Your task to perform on an android device: Show me the alarms in the clock app Image 0: 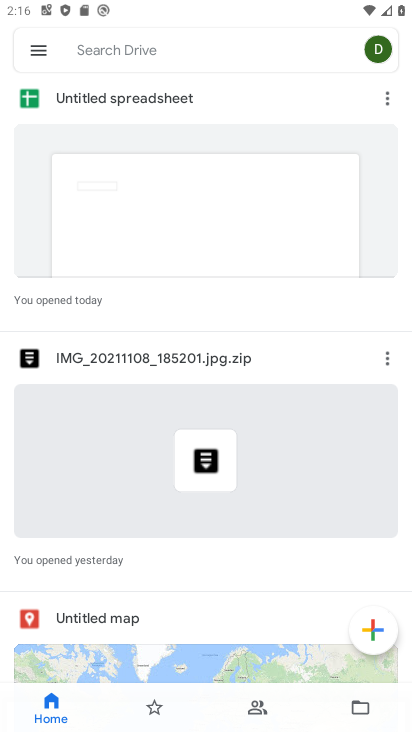
Step 0: press back button
Your task to perform on an android device: Show me the alarms in the clock app Image 1: 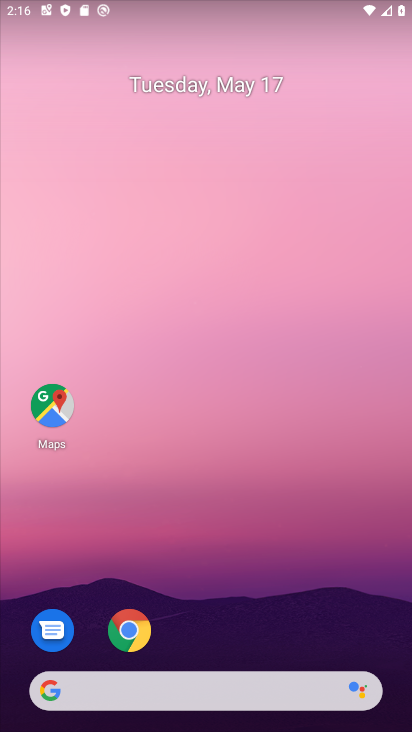
Step 1: drag from (237, 608) to (152, 74)
Your task to perform on an android device: Show me the alarms in the clock app Image 2: 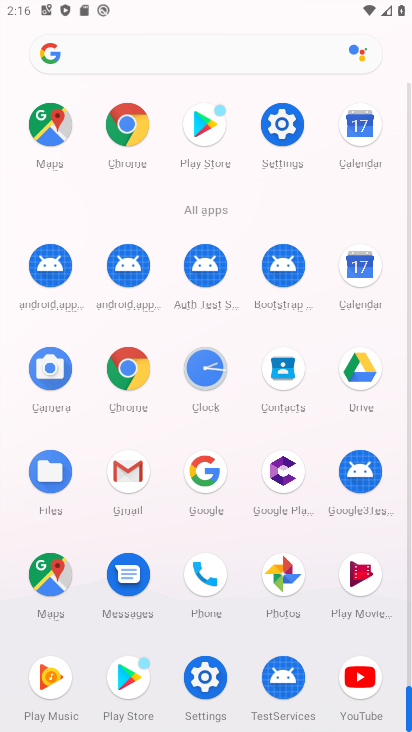
Step 2: click (213, 364)
Your task to perform on an android device: Show me the alarms in the clock app Image 3: 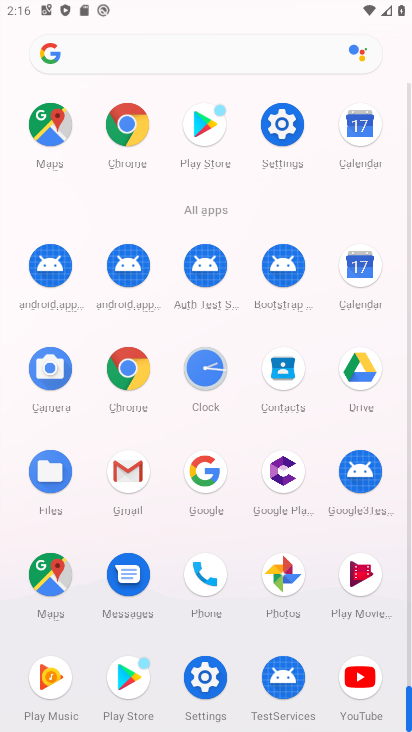
Step 3: click (213, 364)
Your task to perform on an android device: Show me the alarms in the clock app Image 4: 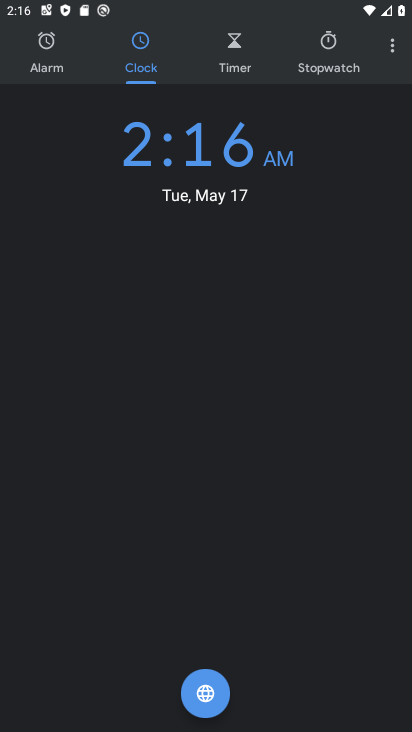
Step 4: click (39, 61)
Your task to perform on an android device: Show me the alarms in the clock app Image 5: 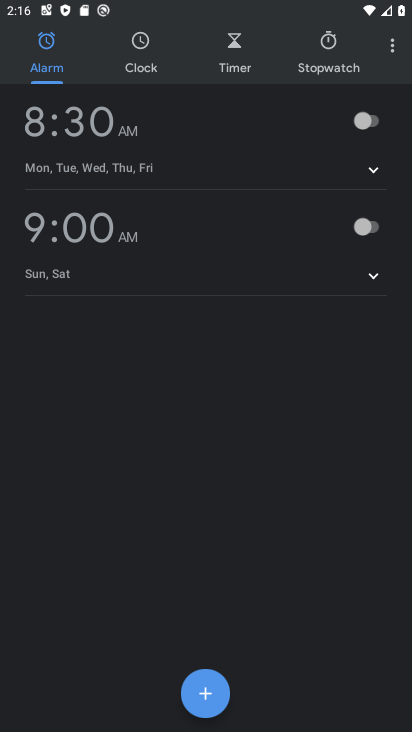
Step 5: click (366, 116)
Your task to perform on an android device: Show me the alarms in the clock app Image 6: 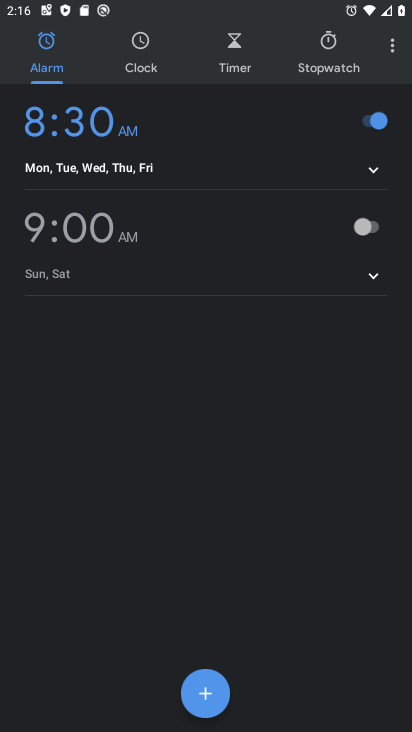
Step 6: task complete